Your task to perform on an android device: Go to sound settings Image 0: 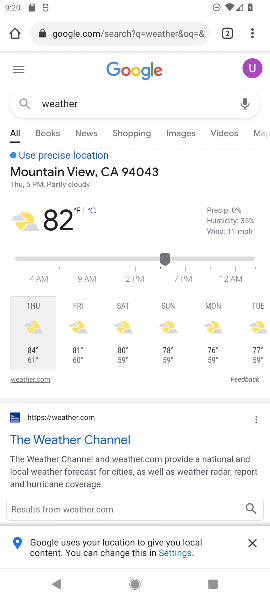
Step 0: drag from (251, 32) to (50, 188)
Your task to perform on an android device: Go to sound settings Image 1: 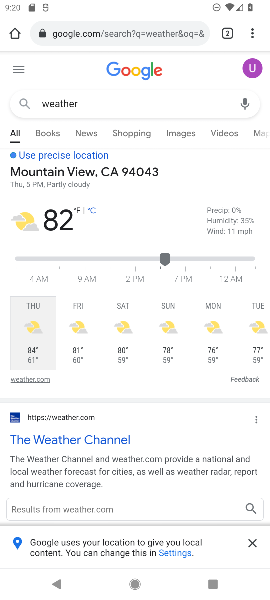
Step 1: press home button
Your task to perform on an android device: Go to sound settings Image 2: 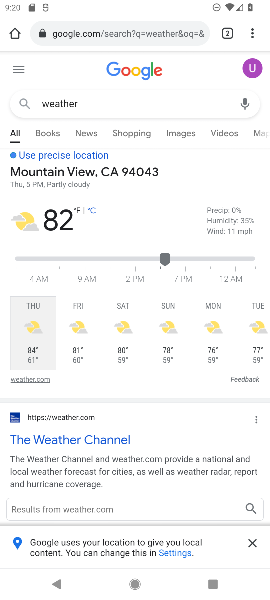
Step 2: drag from (138, 490) to (224, 93)
Your task to perform on an android device: Go to sound settings Image 3: 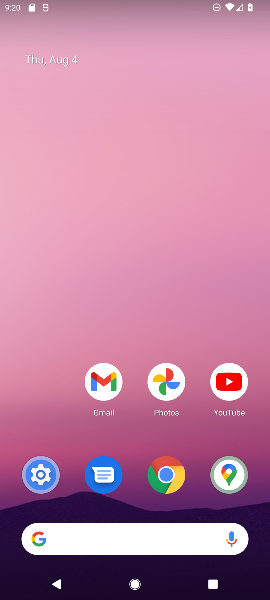
Step 3: click (52, 469)
Your task to perform on an android device: Go to sound settings Image 4: 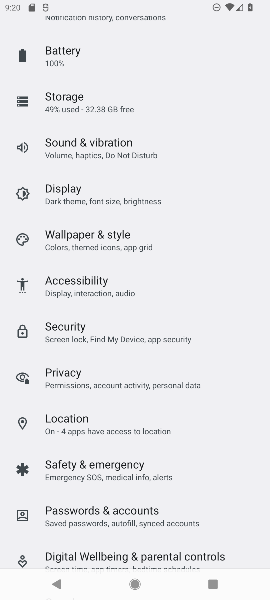
Step 4: drag from (81, 113) to (141, 411)
Your task to perform on an android device: Go to sound settings Image 5: 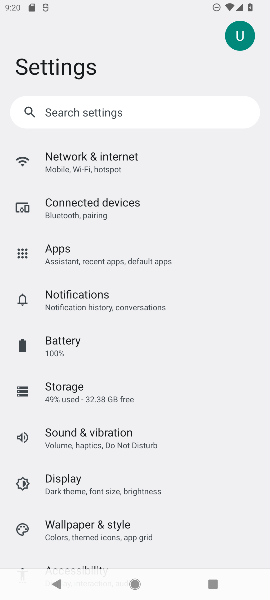
Step 5: drag from (120, 423) to (177, 146)
Your task to perform on an android device: Go to sound settings Image 6: 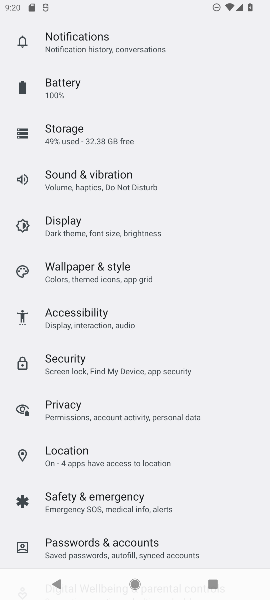
Step 6: drag from (88, 425) to (160, 162)
Your task to perform on an android device: Go to sound settings Image 7: 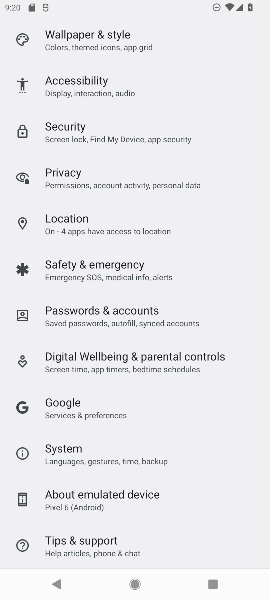
Step 7: drag from (95, 122) to (164, 448)
Your task to perform on an android device: Go to sound settings Image 8: 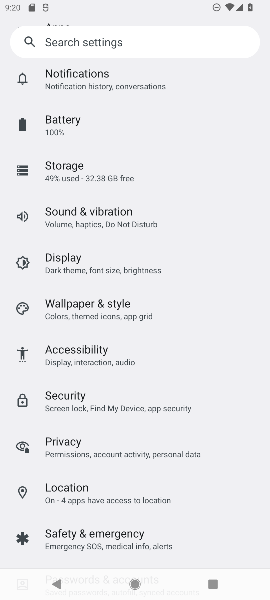
Step 8: click (90, 214)
Your task to perform on an android device: Go to sound settings Image 9: 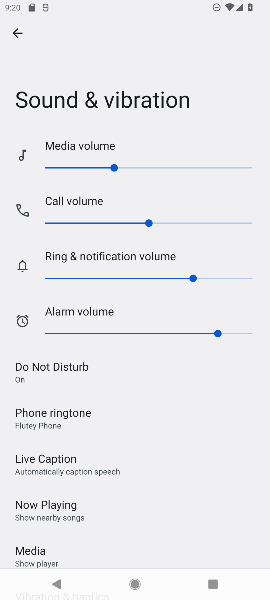
Step 9: task complete